Your task to perform on an android device: change the clock display to analog Image 0: 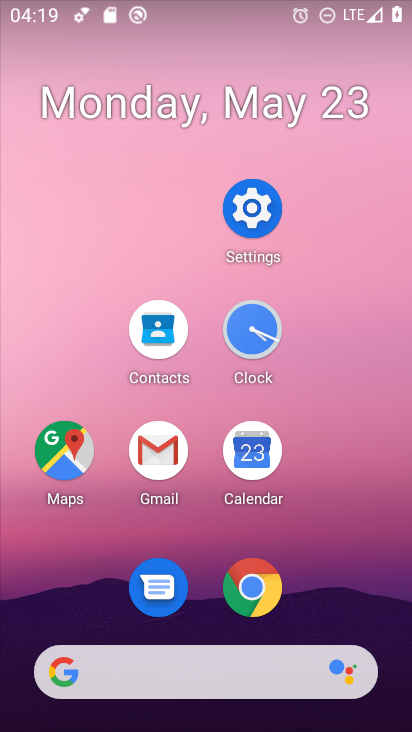
Step 0: click (262, 376)
Your task to perform on an android device: change the clock display to analog Image 1: 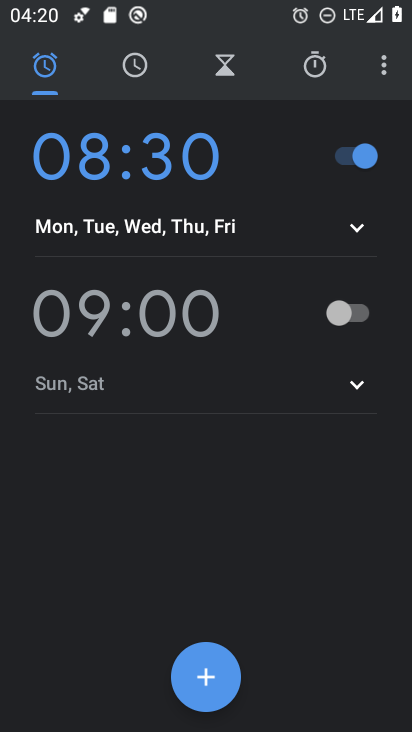
Step 1: click (381, 76)
Your task to perform on an android device: change the clock display to analog Image 2: 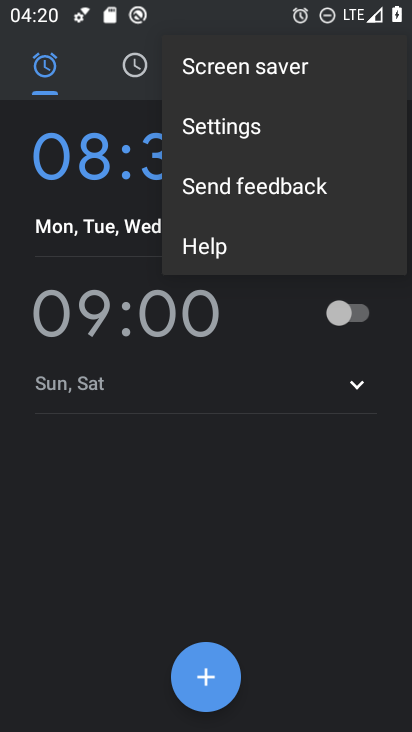
Step 2: click (227, 120)
Your task to perform on an android device: change the clock display to analog Image 3: 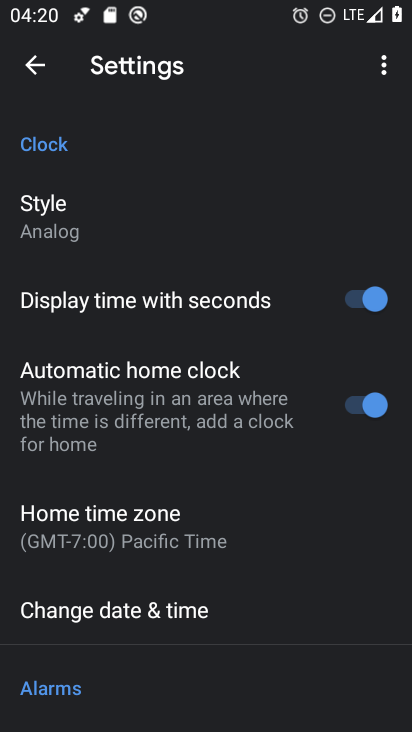
Step 3: task complete